Your task to perform on an android device: open app "Google Home" Image 0: 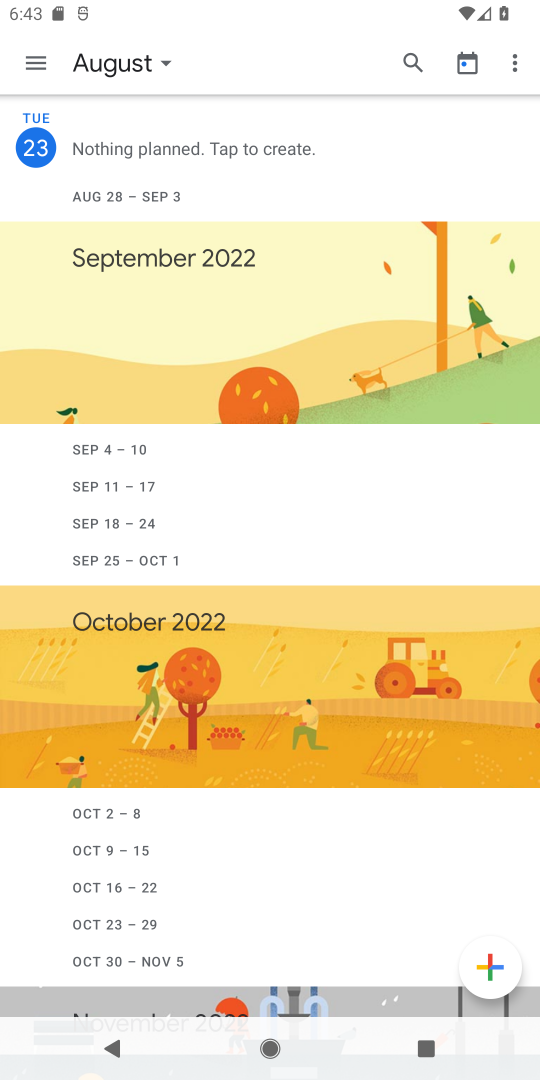
Step 0: press home button
Your task to perform on an android device: open app "Google Home" Image 1: 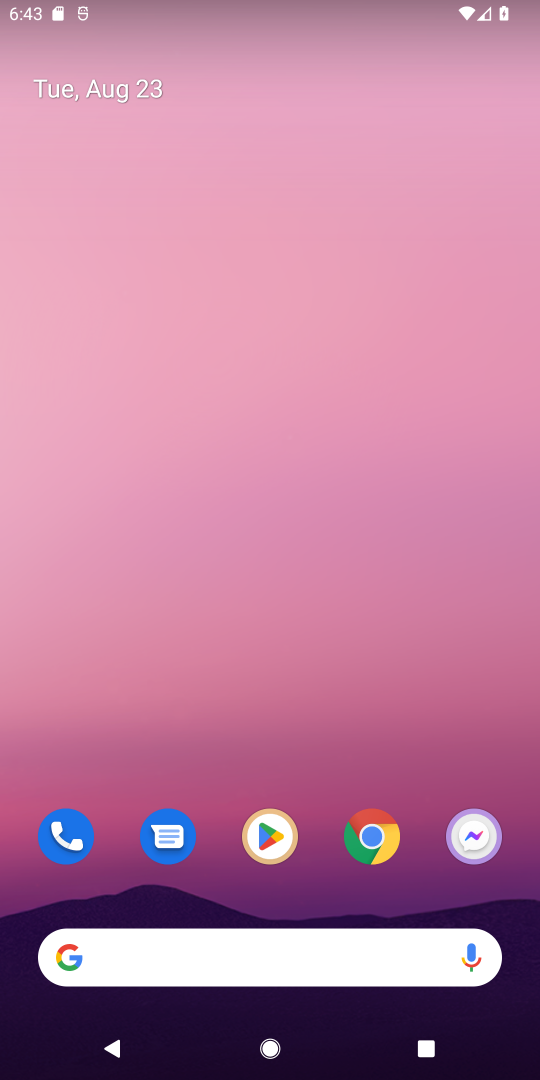
Step 1: click (262, 826)
Your task to perform on an android device: open app "Google Home" Image 2: 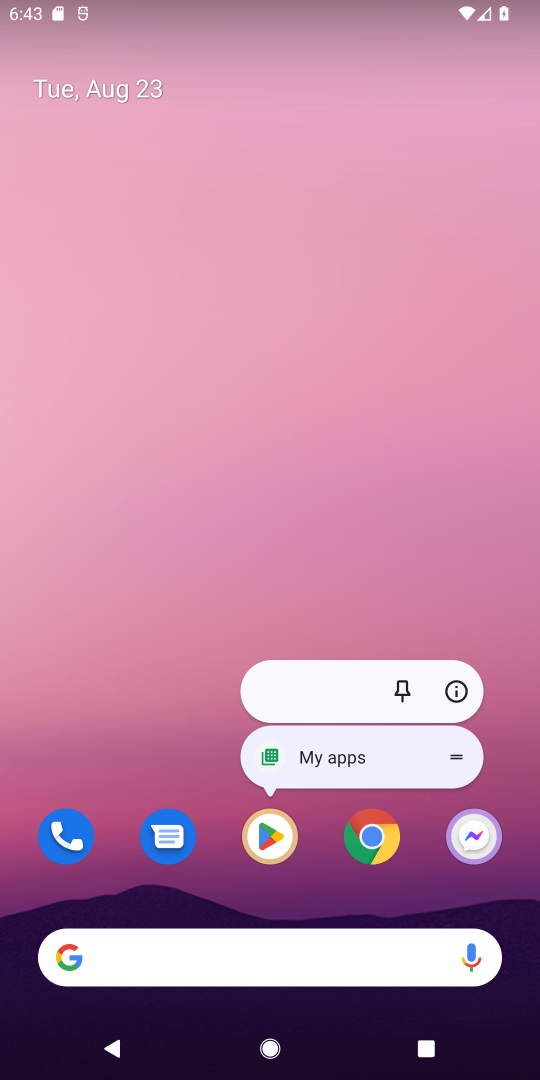
Step 2: click (262, 832)
Your task to perform on an android device: open app "Google Home" Image 3: 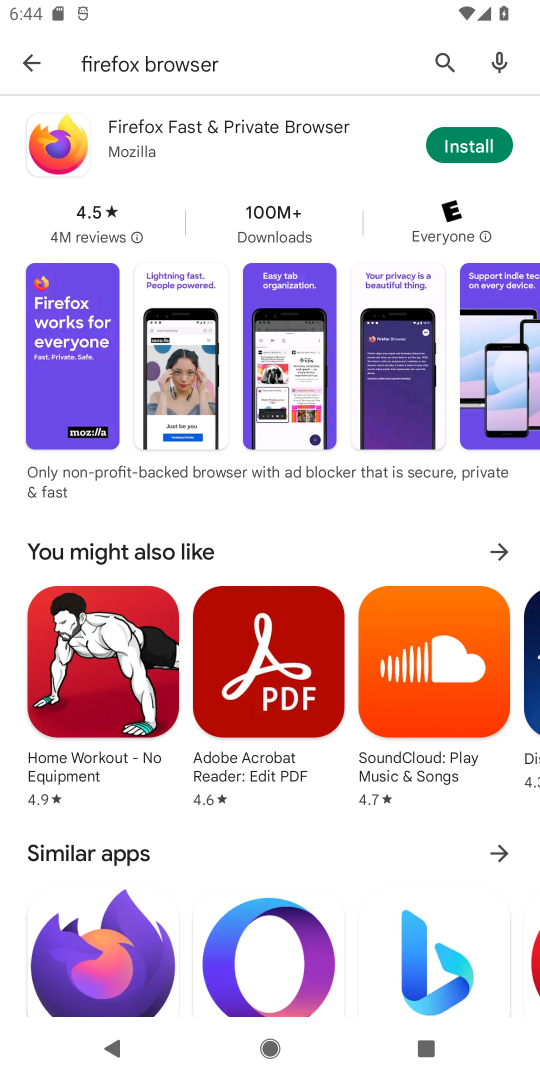
Step 3: click (448, 56)
Your task to perform on an android device: open app "Google Home" Image 4: 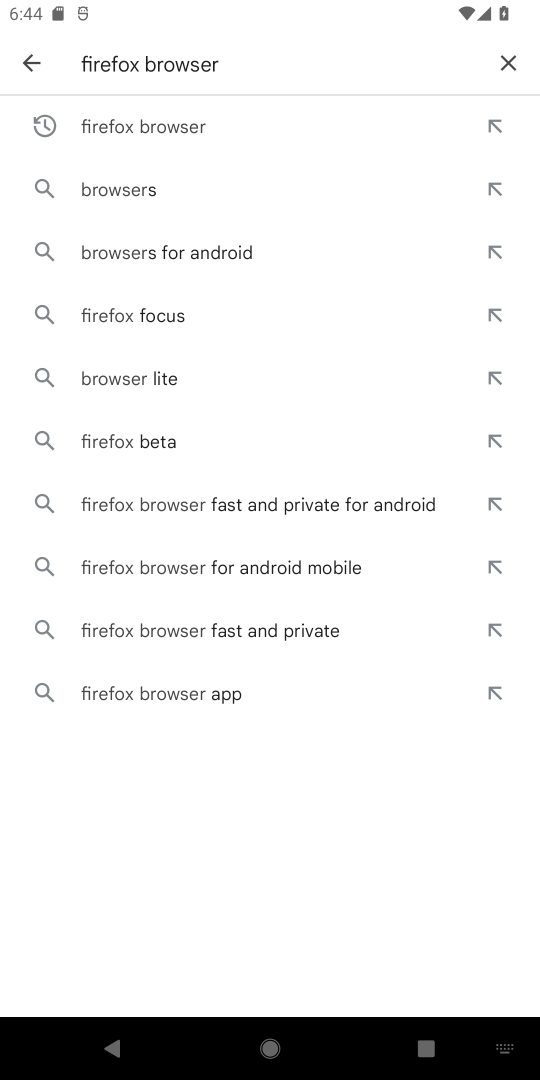
Step 4: click (516, 62)
Your task to perform on an android device: open app "Google Home" Image 5: 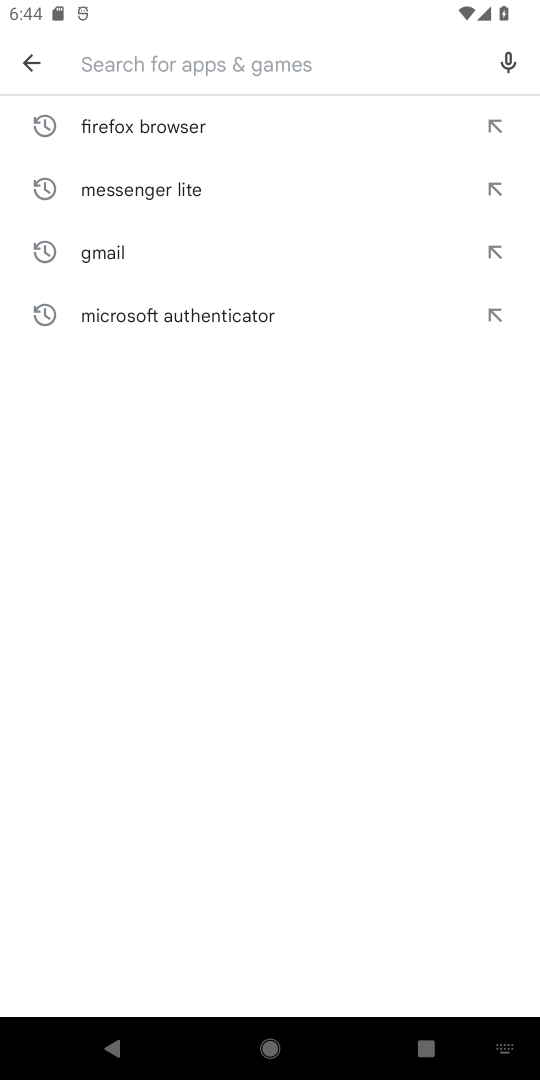
Step 5: type "Google Home"
Your task to perform on an android device: open app "Google Home" Image 6: 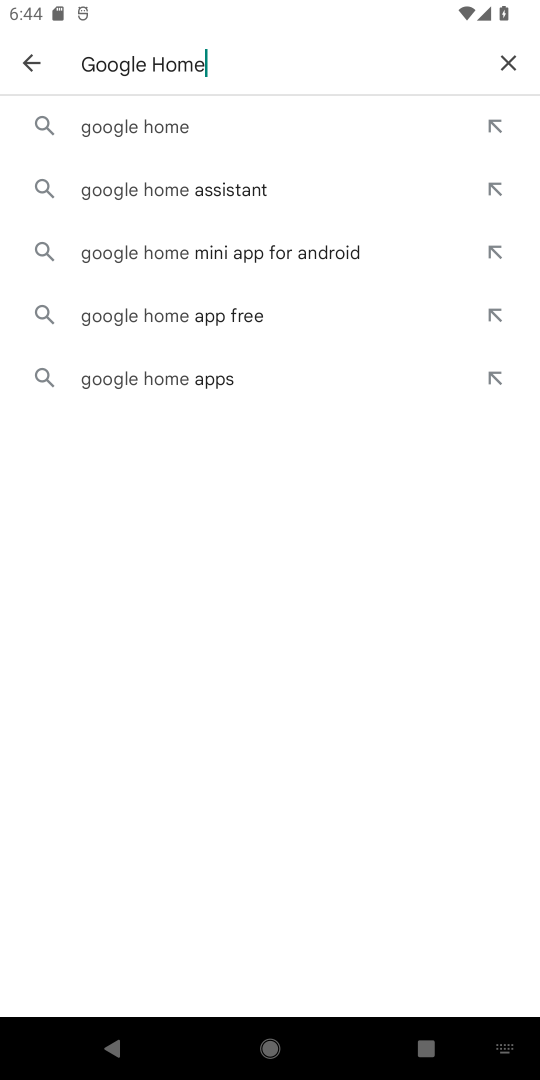
Step 6: click (158, 132)
Your task to perform on an android device: open app "Google Home" Image 7: 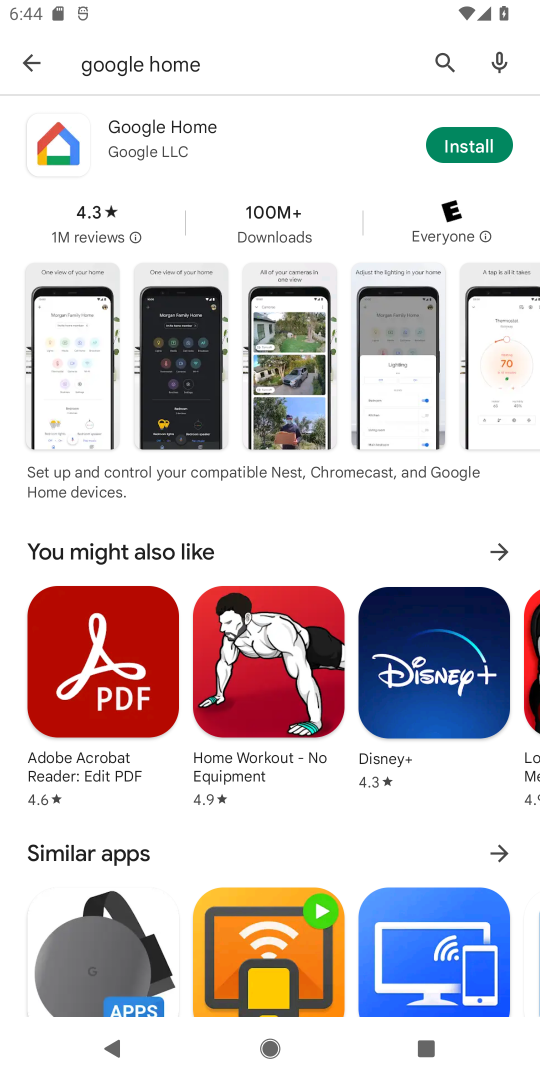
Step 7: task complete